Your task to perform on an android device: Find coffee shops on Maps Image 0: 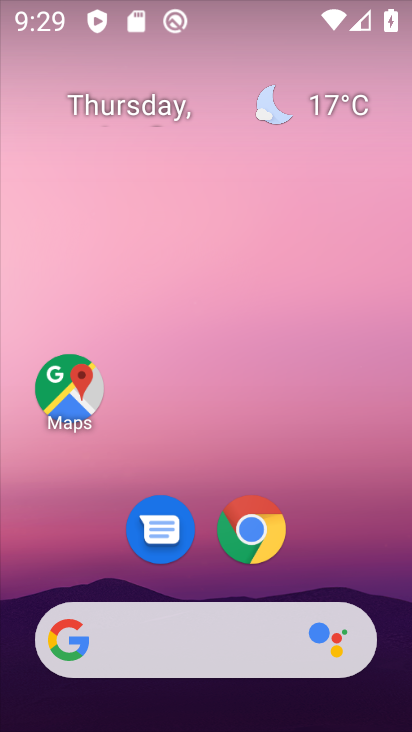
Step 0: click (55, 393)
Your task to perform on an android device: Find coffee shops on Maps Image 1: 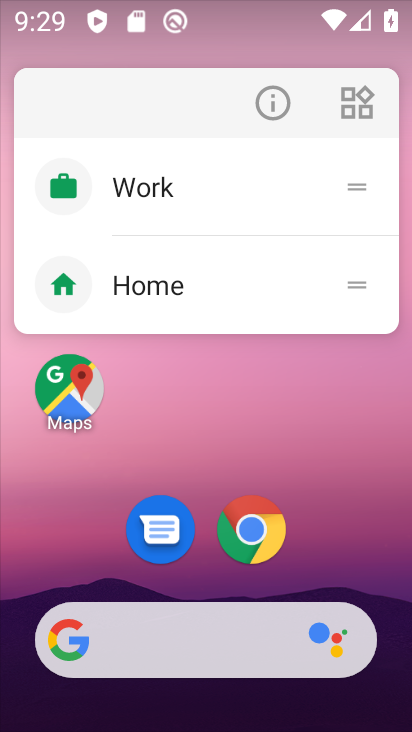
Step 1: click (64, 400)
Your task to perform on an android device: Find coffee shops on Maps Image 2: 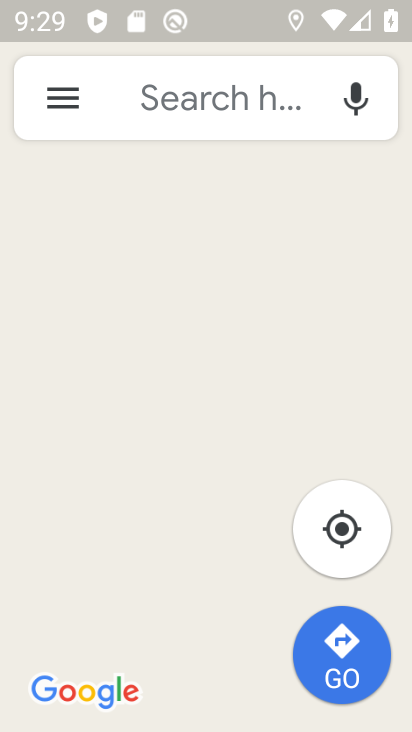
Step 2: click (197, 121)
Your task to perform on an android device: Find coffee shops on Maps Image 3: 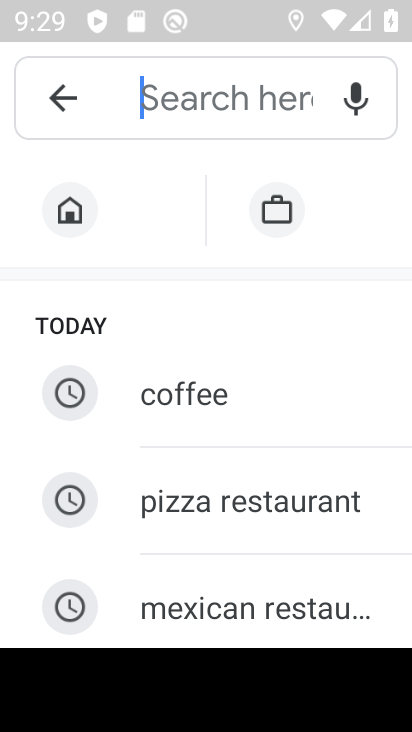
Step 3: type "Coffee shops"
Your task to perform on an android device: Find coffee shops on Maps Image 4: 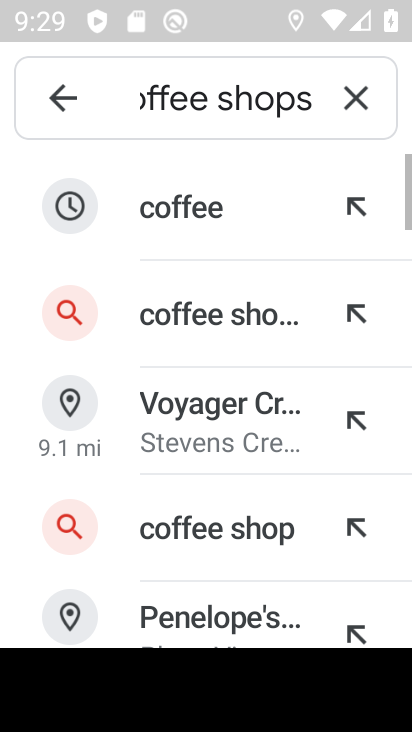
Step 4: click (223, 330)
Your task to perform on an android device: Find coffee shops on Maps Image 5: 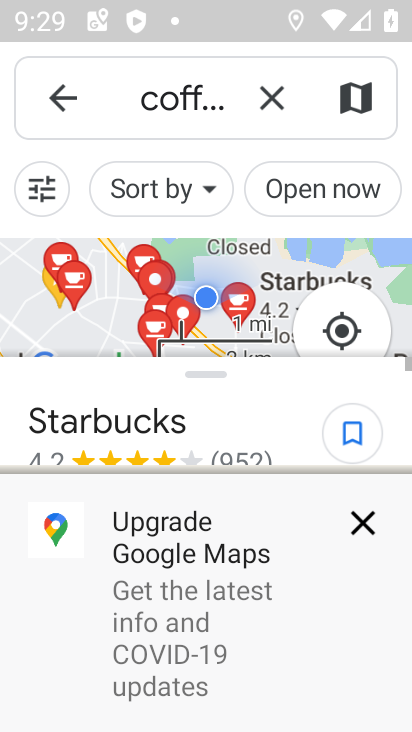
Step 5: click (375, 535)
Your task to perform on an android device: Find coffee shops on Maps Image 6: 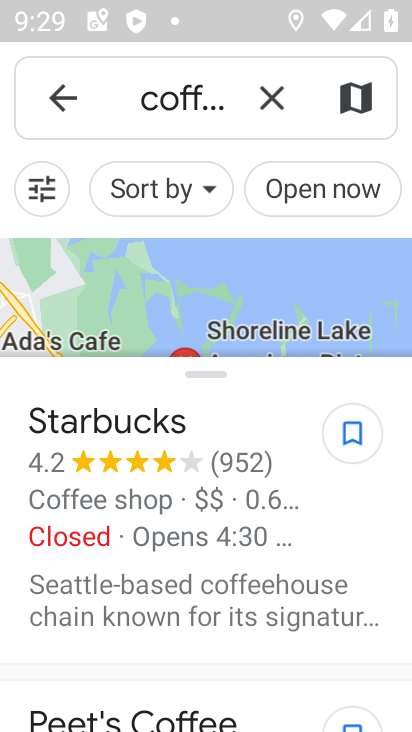
Step 6: task complete